Your task to perform on an android device: open sync settings in chrome Image 0: 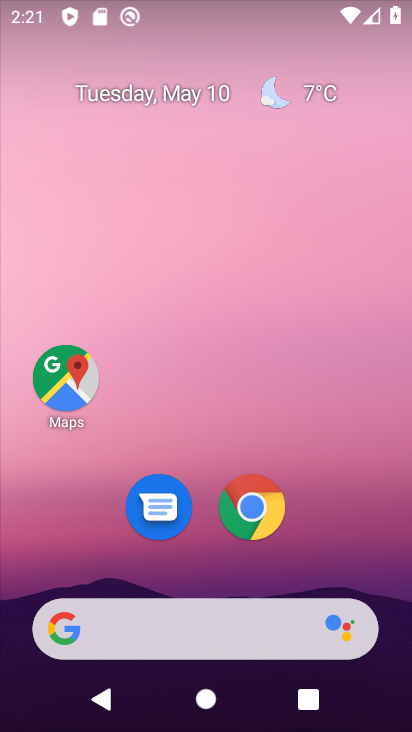
Step 0: click (233, 504)
Your task to perform on an android device: open sync settings in chrome Image 1: 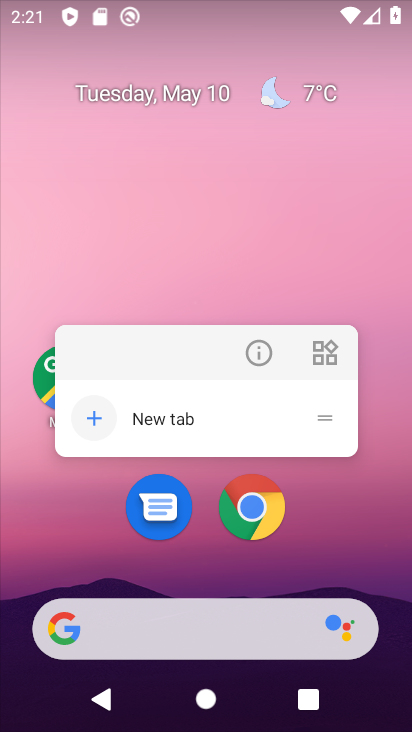
Step 1: click (233, 504)
Your task to perform on an android device: open sync settings in chrome Image 2: 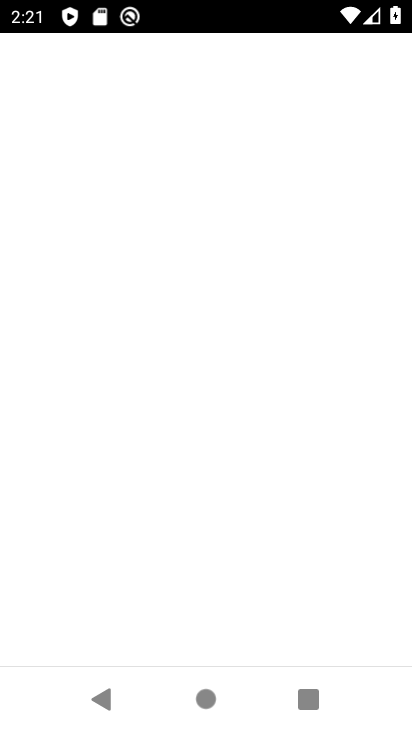
Step 2: click (232, 484)
Your task to perform on an android device: open sync settings in chrome Image 3: 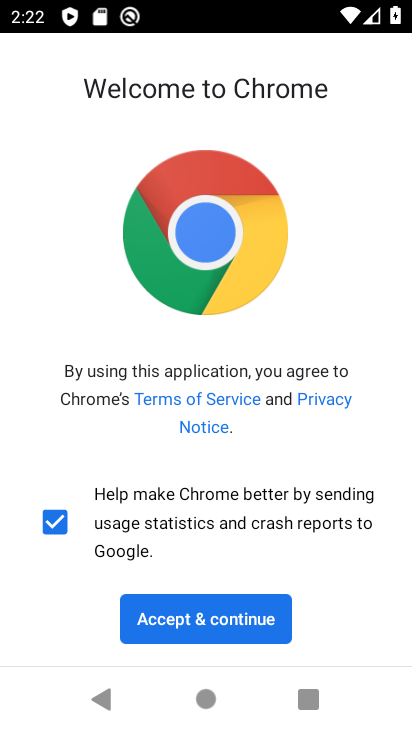
Step 3: click (160, 623)
Your task to perform on an android device: open sync settings in chrome Image 4: 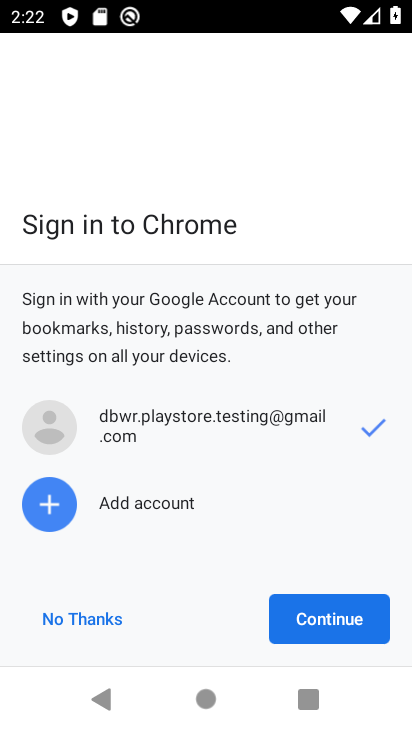
Step 4: click (322, 627)
Your task to perform on an android device: open sync settings in chrome Image 5: 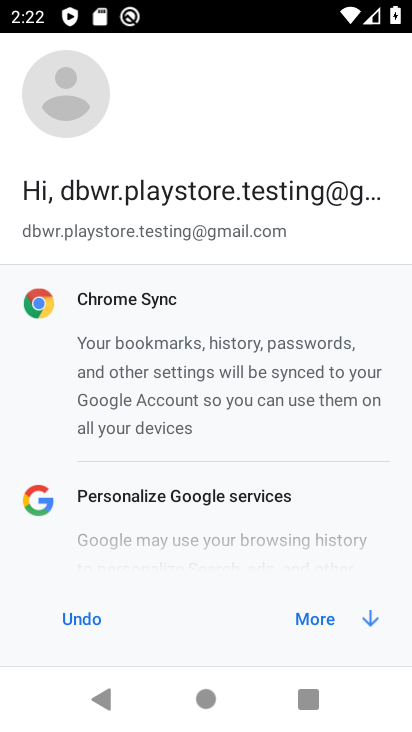
Step 5: click (322, 627)
Your task to perform on an android device: open sync settings in chrome Image 6: 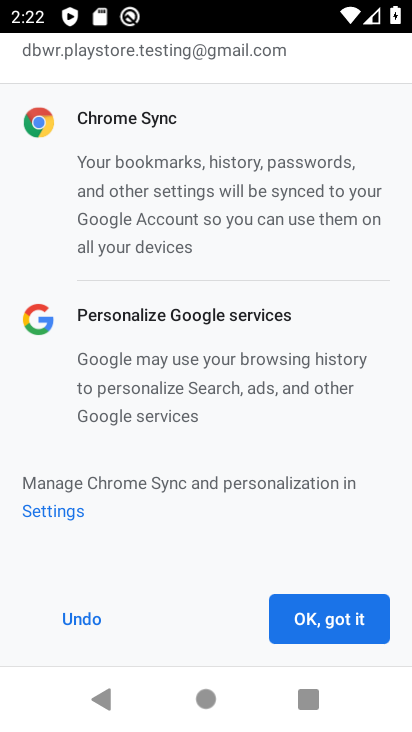
Step 6: click (322, 627)
Your task to perform on an android device: open sync settings in chrome Image 7: 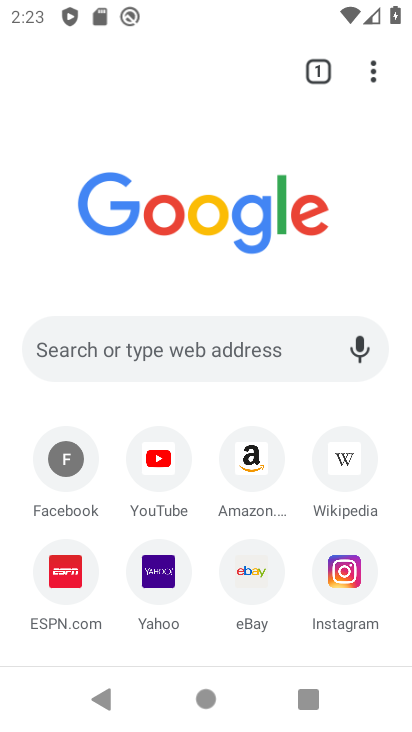
Step 7: click (371, 82)
Your task to perform on an android device: open sync settings in chrome Image 8: 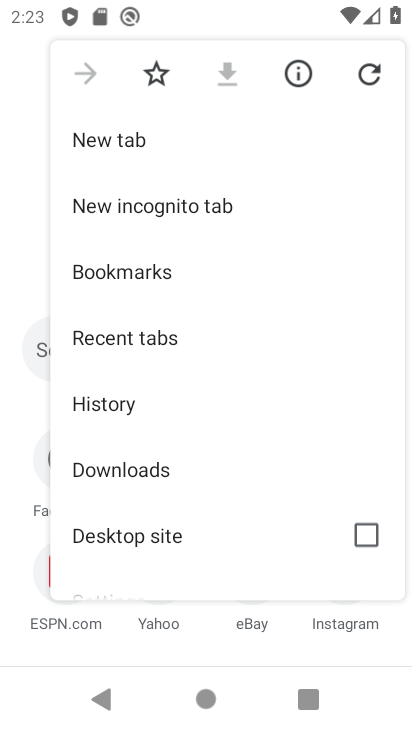
Step 8: drag from (176, 481) to (169, 252)
Your task to perform on an android device: open sync settings in chrome Image 9: 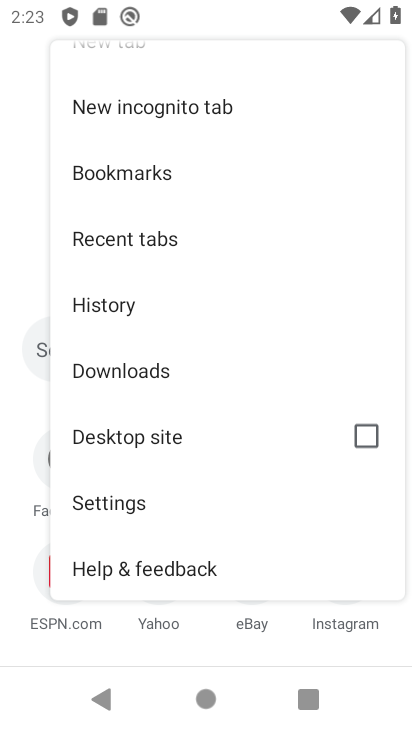
Step 9: click (165, 514)
Your task to perform on an android device: open sync settings in chrome Image 10: 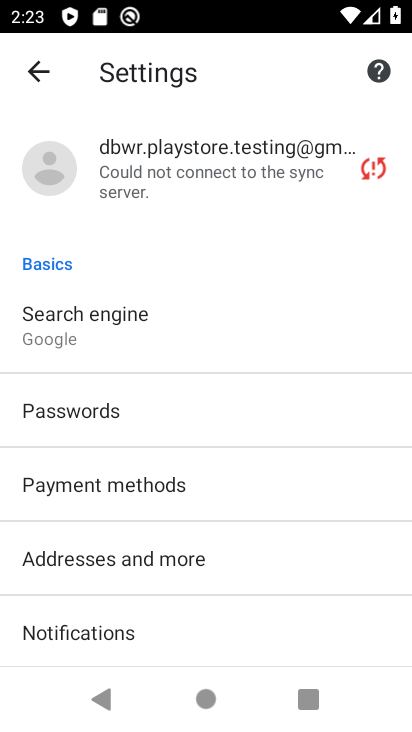
Step 10: click (190, 161)
Your task to perform on an android device: open sync settings in chrome Image 11: 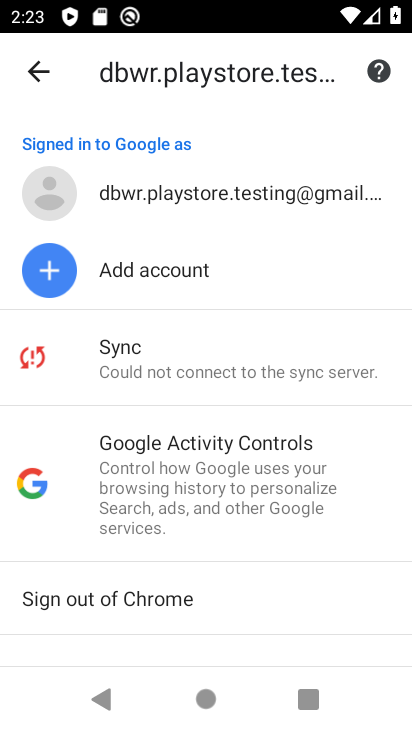
Step 11: click (209, 373)
Your task to perform on an android device: open sync settings in chrome Image 12: 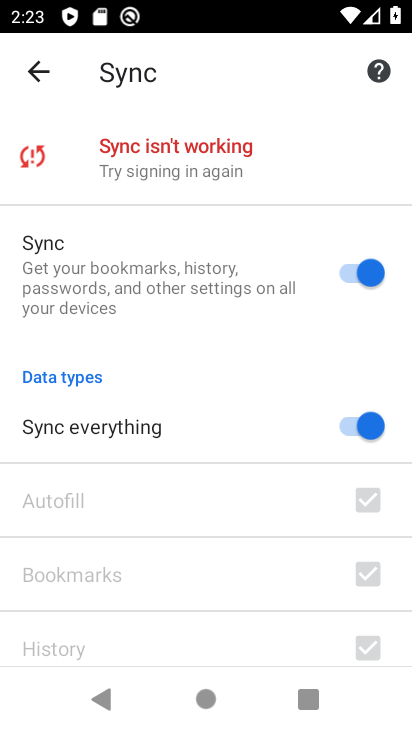
Step 12: task complete